Your task to perform on an android device: Go to battery settings Image 0: 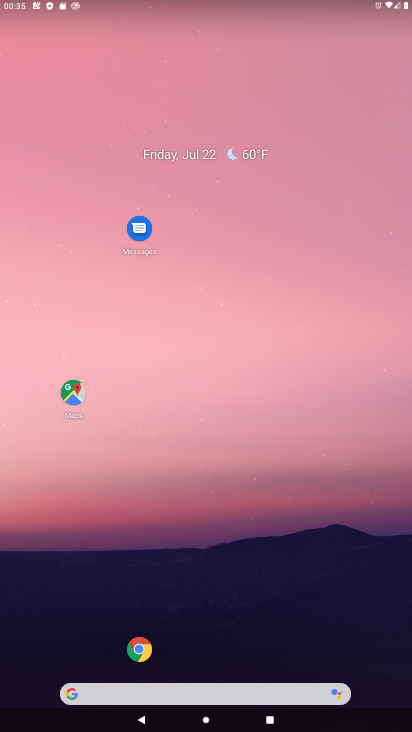
Step 0: drag from (38, 691) to (195, 163)
Your task to perform on an android device: Go to battery settings Image 1: 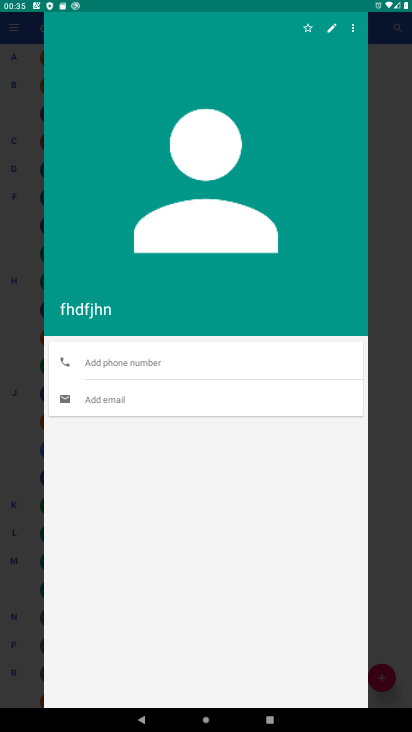
Step 1: press home button
Your task to perform on an android device: Go to battery settings Image 2: 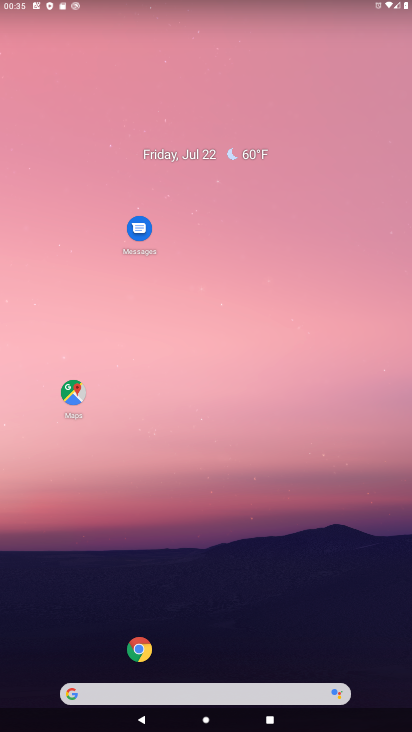
Step 2: drag from (51, 693) to (293, 123)
Your task to perform on an android device: Go to battery settings Image 3: 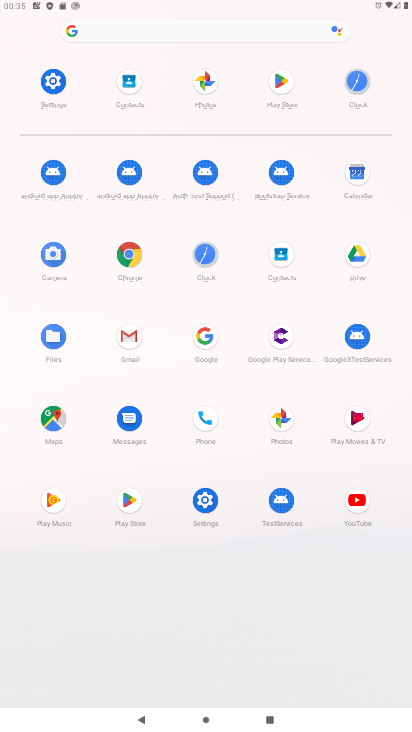
Step 3: click (123, 335)
Your task to perform on an android device: Go to battery settings Image 4: 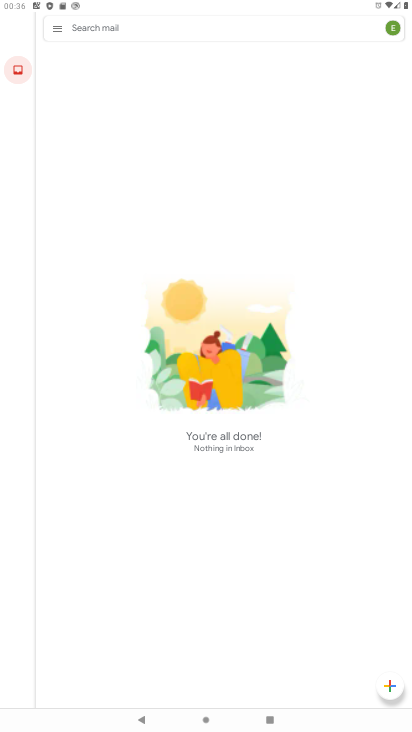
Step 4: press home button
Your task to perform on an android device: Go to battery settings Image 5: 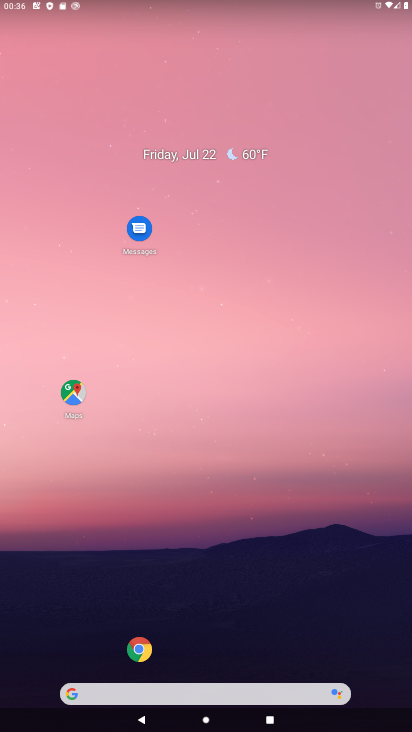
Step 5: drag from (67, 674) to (154, 153)
Your task to perform on an android device: Go to battery settings Image 6: 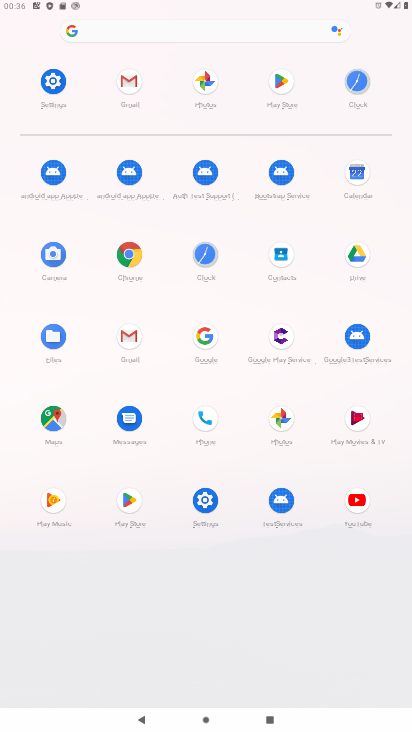
Step 6: click (202, 505)
Your task to perform on an android device: Go to battery settings Image 7: 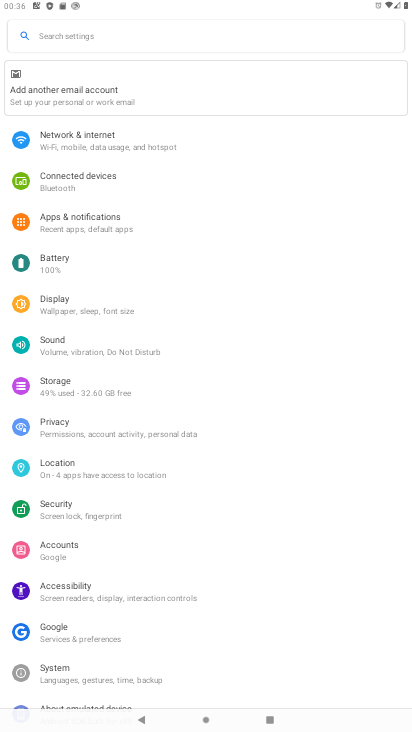
Step 7: click (49, 253)
Your task to perform on an android device: Go to battery settings Image 8: 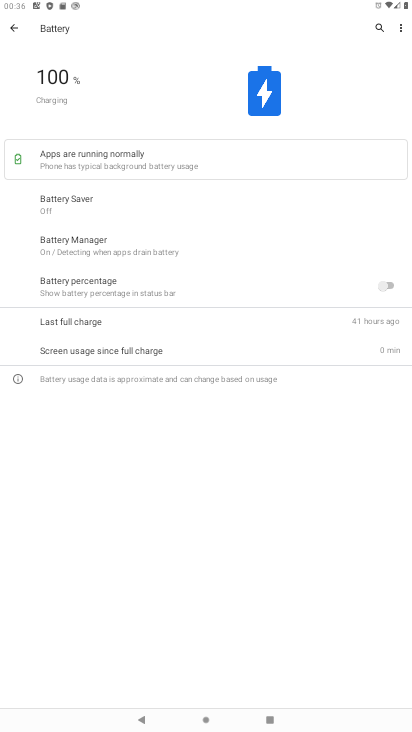
Step 8: task complete